Your task to perform on an android device: Open sound settings Image 0: 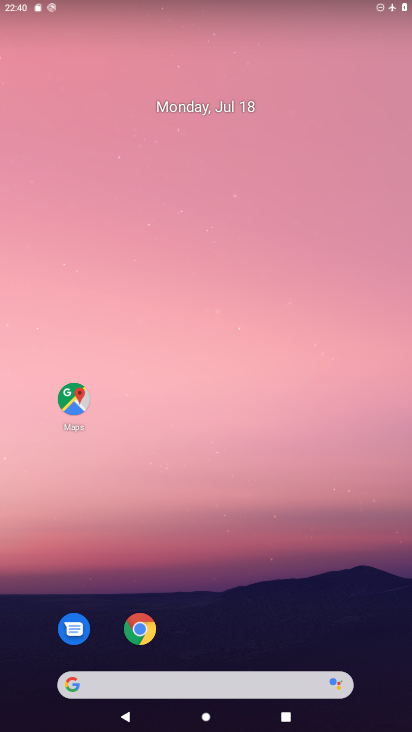
Step 0: drag from (299, 630) to (201, 69)
Your task to perform on an android device: Open sound settings Image 1: 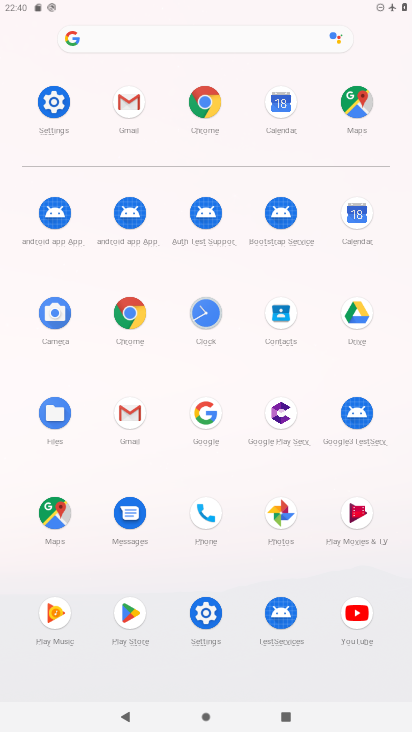
Step 1: click (62, 93)
Your task to perform on an android device: Open sound settings Image 2: 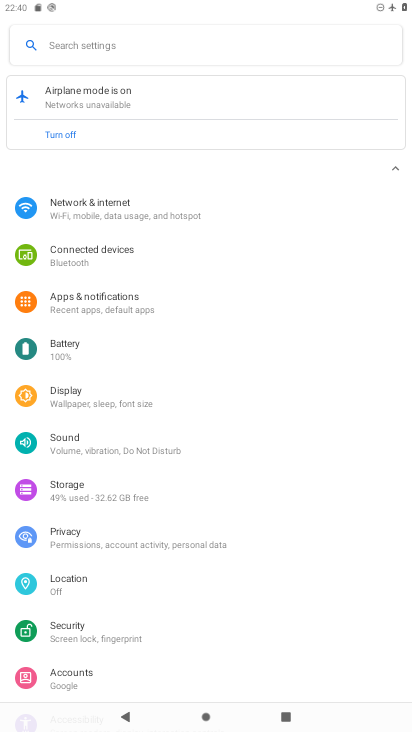
Step 2: click (129, 458)
Your task to perform on an android device: Open sound settings Image 3: 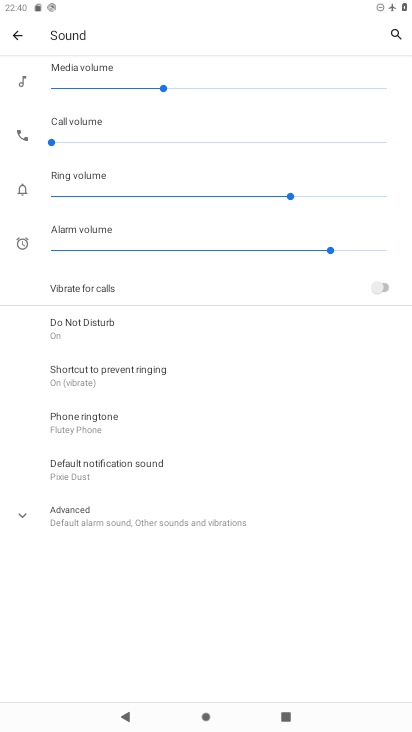
Step 3: task complete